Your task to perform on an android device: Show me popular videos on Youtube Image 0: 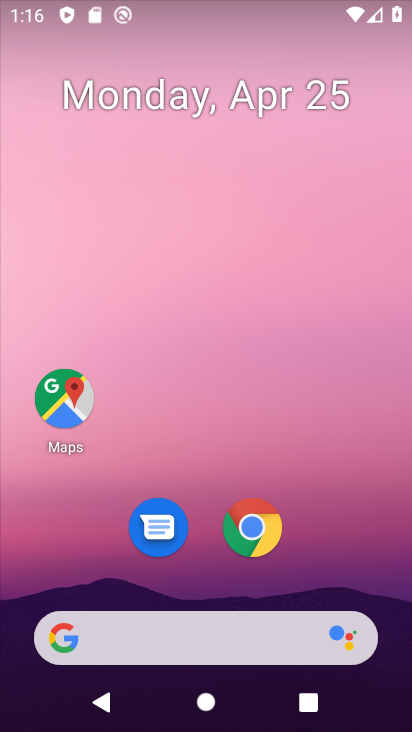
Step 0: drag from (407, 643) to (278, 51)
Your task to perform on an android device: Show me popular videos on Youtube Image 1: 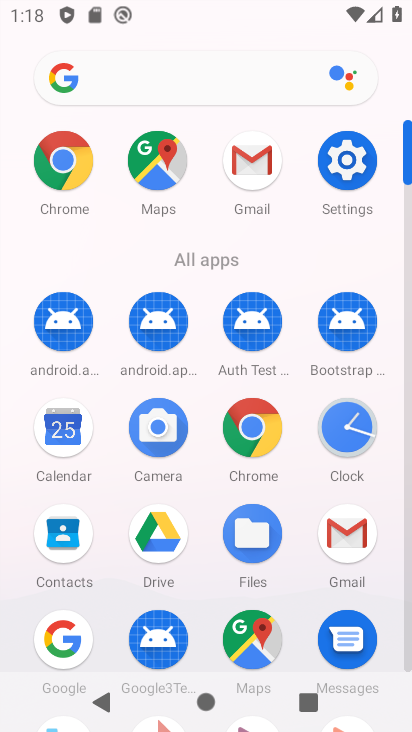
Step 1: click (405, 670)
Your task to perform on an android device: Show me popular videos on Youtube Image 2: 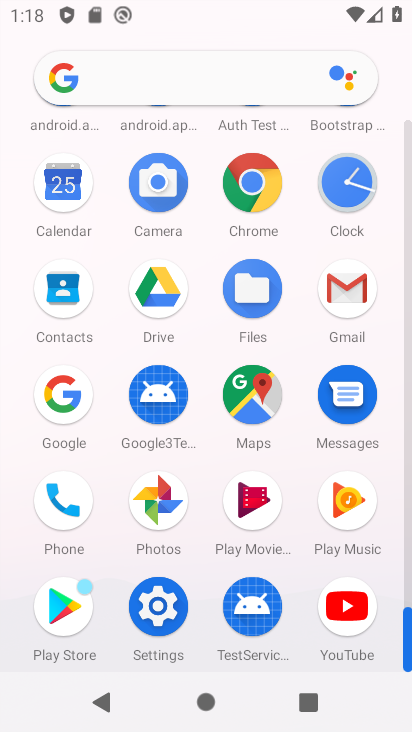
Step 2: click (358, 613)
Your task to perform on an android device: Show me popular videos on Youtube Image 3: 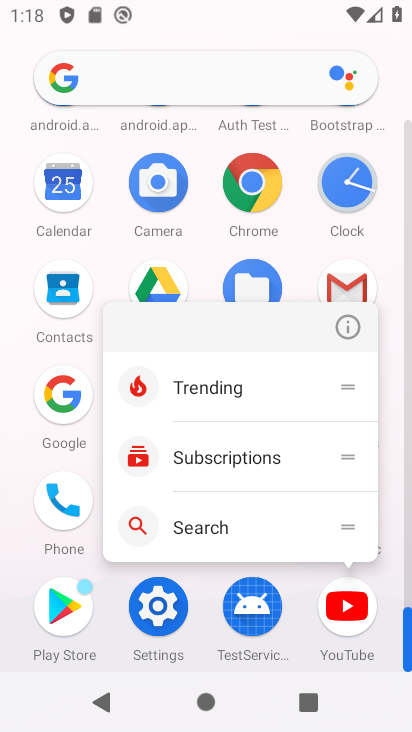
Step 3: click (337, 598)
Your task to perform on an android device: Show me popular videos on Youtube Image 4: 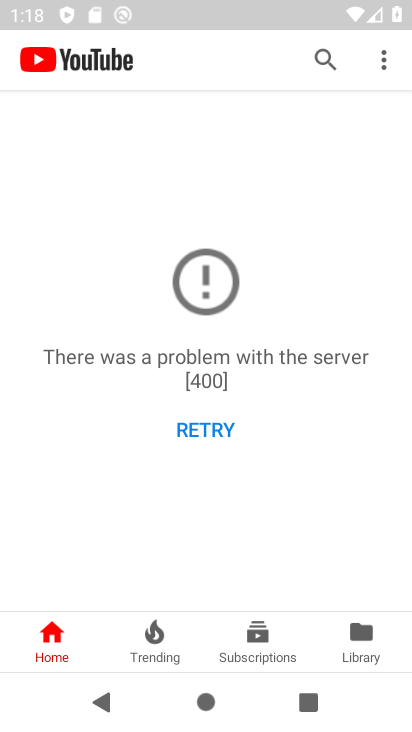
Step 4: click (207, 440)
Your task to perform on an android device: Show me popular videos on Youtube Image 5: 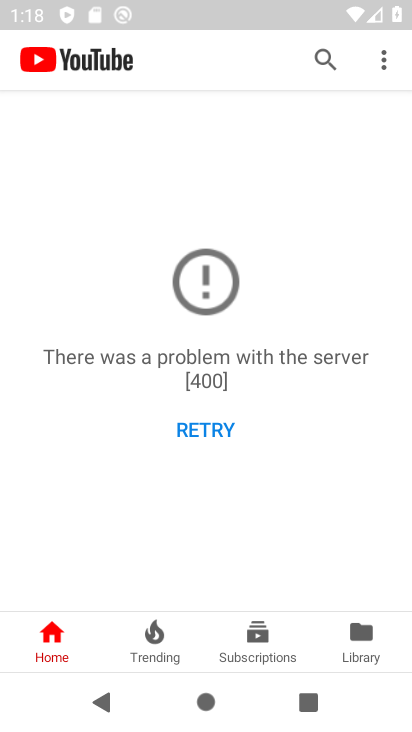
Step 5: click (208, 432)
Your task to perform on an android device: Show me popular videos on Youtube Image 6: 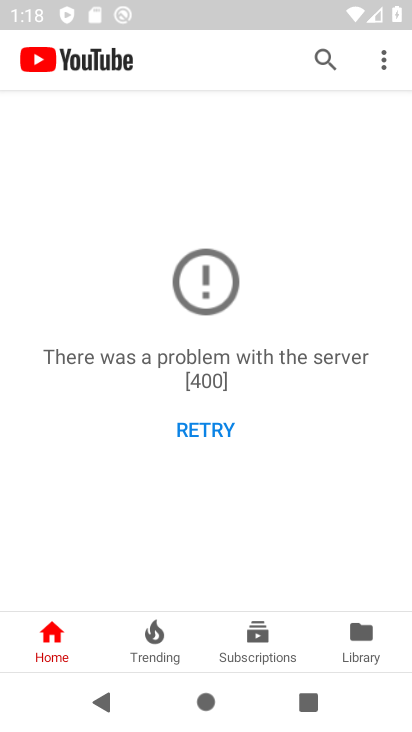
Step 6: click (208, 432)
Your task to perform on an android device: Show me popular videos on Youtube Image 7: 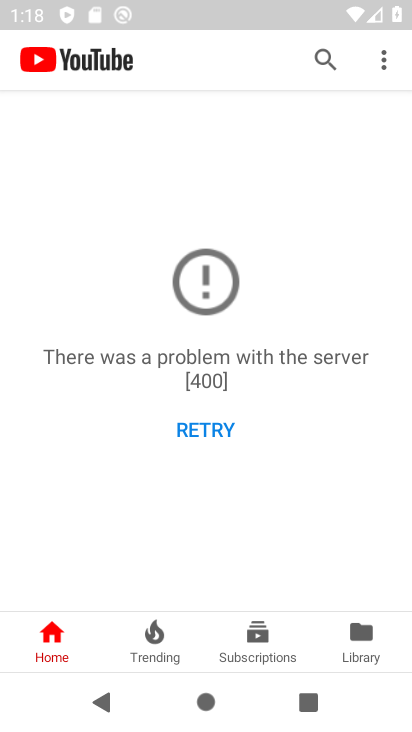
Step 7: task complete